Your task to perform on an android device: add a label to a message in the gmail app Image 0: 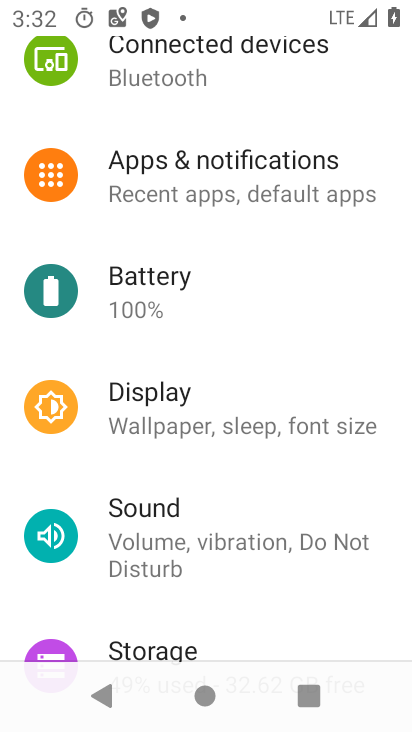
Step 0: press home button
Your task to perform on an android device: add a label to a message in the gmail app Image 1: 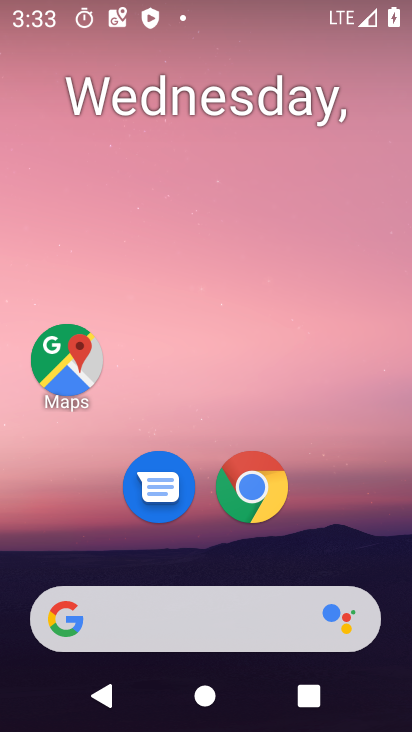
Step 1: drag from (288, 629) to (273, 286)
Your task to perform on an android device: add a label to a message in the gmail app Image 2: 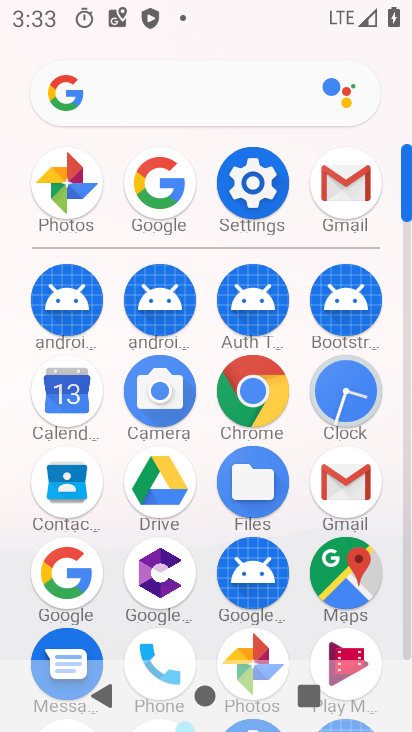
Step 2: click (360, 496)
Your task to perform on an android device: add a label to a message in the gmail app Image 3: 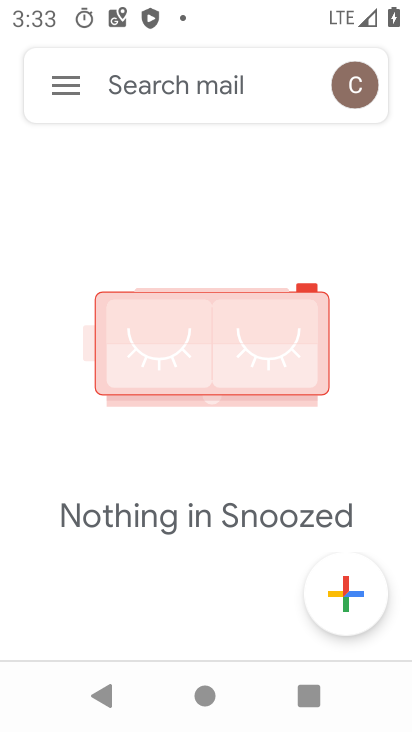
Step 3: click (66, 102)
Your task to perform on an android device: add a label to a message in the gmail app Image 4: 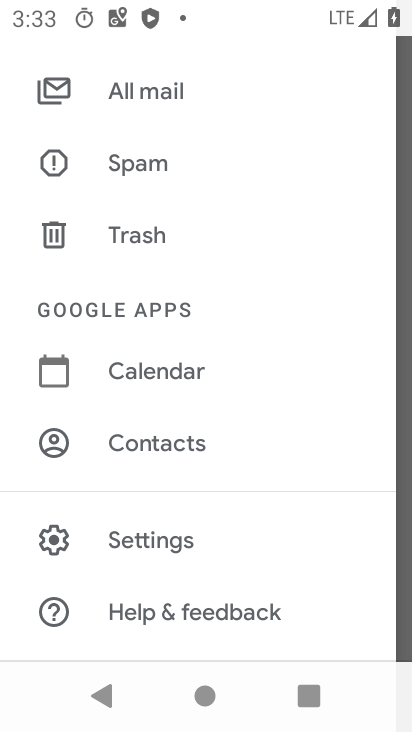
Step 4: click (182, 115)
Your task to perform on an android device: add a label to a message in the gmail app Image 5: 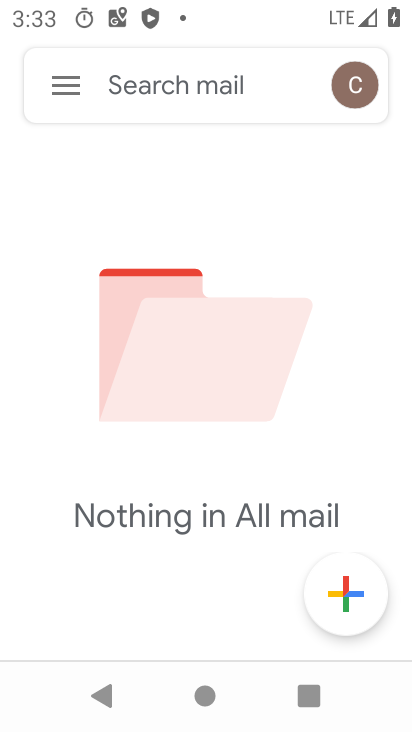
Step 5: task complete